Your task to perform on an android device: open device folders in google photos Image 0: 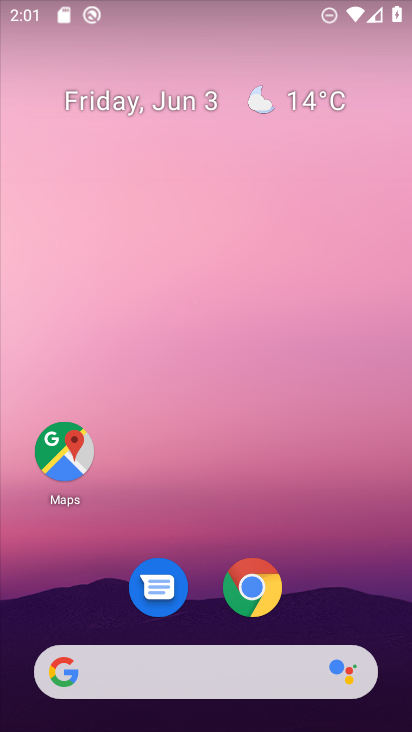
Step 0: drag from (325, 610) to (309, 12)
Your task to perform on an android device: open device folders in google photos Image 1: 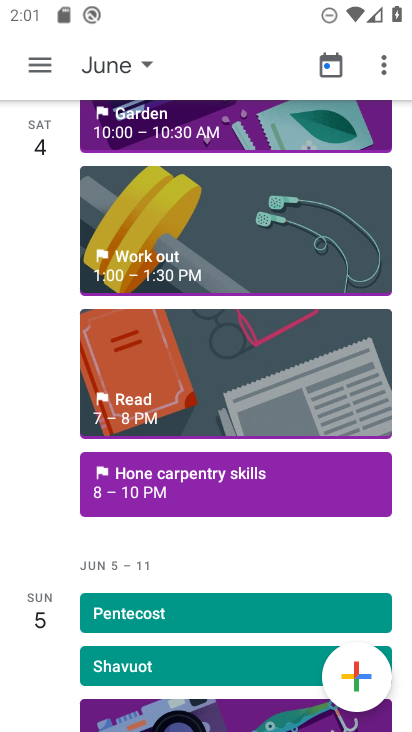
Step 1: press home button
Your task to perform on an android device: open device folders in google photos Image 2: 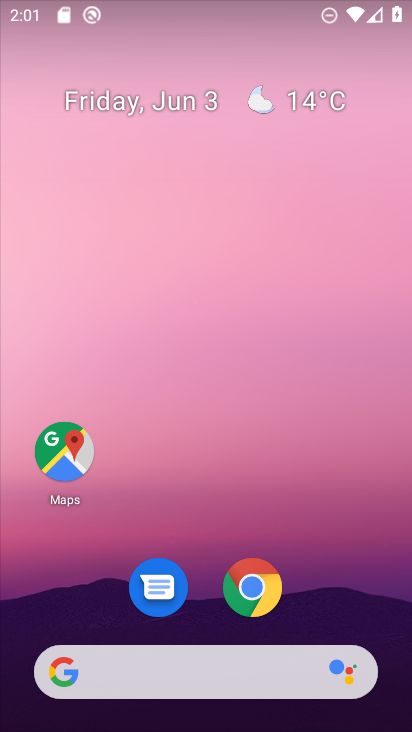
Step 2: drag from (301, 625) to (305, 18)
Your task to perform on an android device: open device folders in google photos Image 3: 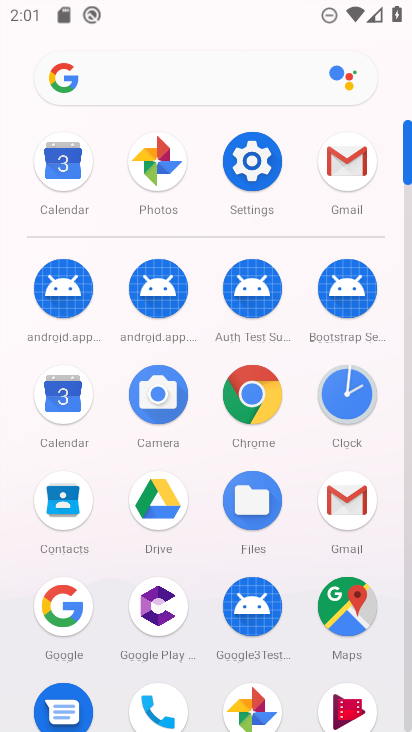
Step 3: click (244, 706)
Your task to perform on an android device: open device folders in google photos Image 4: 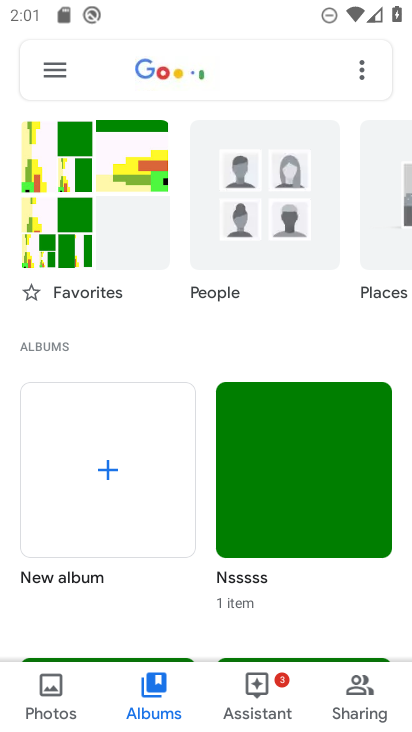
Step 4: click (56, 66)
Your task to perform on an android device: open device folders in google photos Image 5: 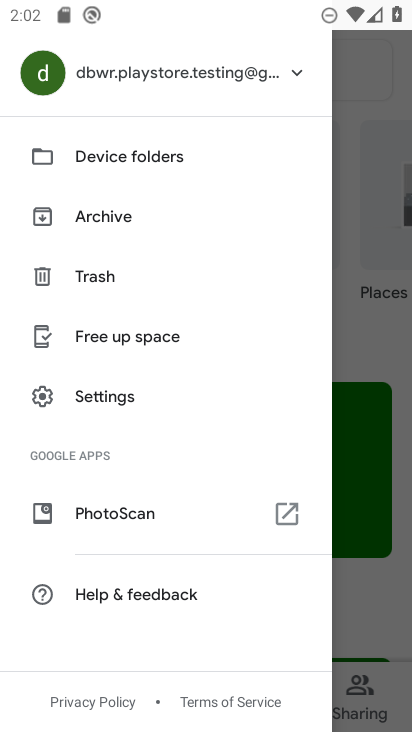
Step 5: click (159, 163)
Your task to perform on an android device: open device folders in google photos Image 6: 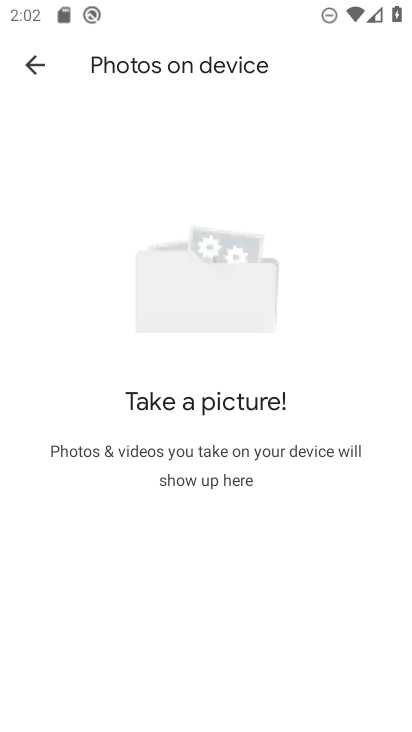
Step 6: task complete